Your task to perform on an android device: Do I have any events today? Image 0: 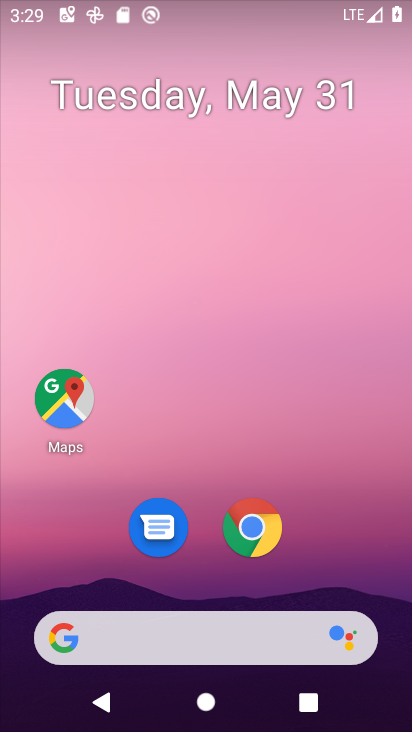
Step 0: drag from (337, 505) to (343, 145)
Your task to perform on an android device: Do I have any events today? Image 1: 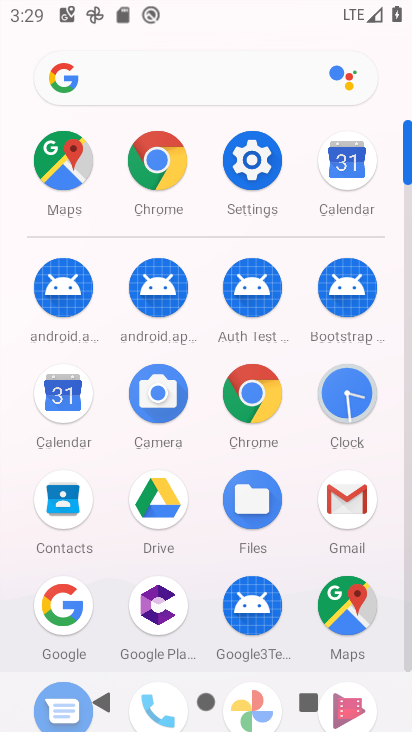
Step 1: click (83, 402)
Your task to perform on an android device: Do I have any events today? Image 2: 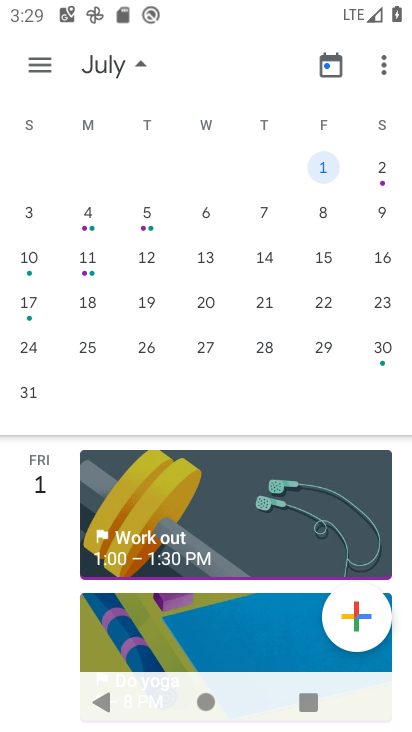
Step 2: task complete